Your task to perform on an android device: toggle airplane mode Image 0: 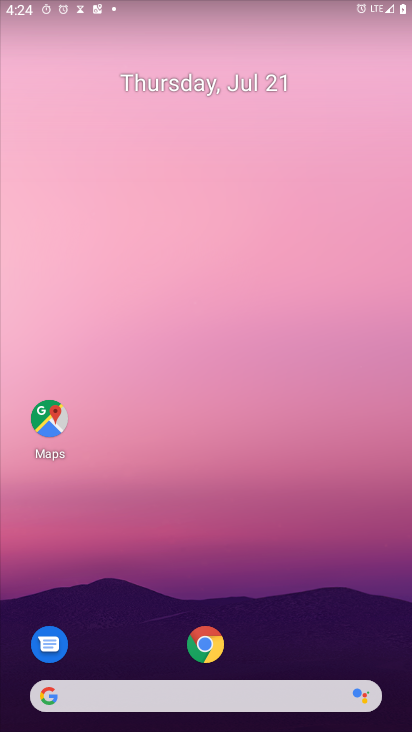
Step 0: drag from (230, 126) to (233, 665)
Your task to perform on an android device: toggle airplane mode Image 1: 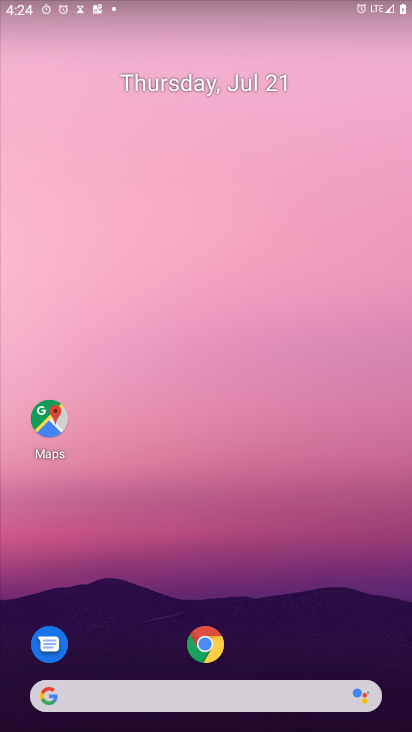
Step 1: drag from (232, 4) to (177, 508)
Your task to perform on an android device: toggle airplane mode Image 2: 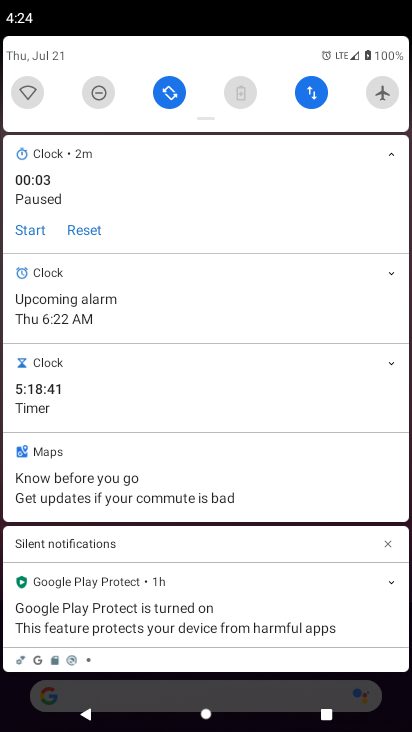
Step 2: click (377, 93)
Your task to perform on an android device: toggle airplane mode Image 3: 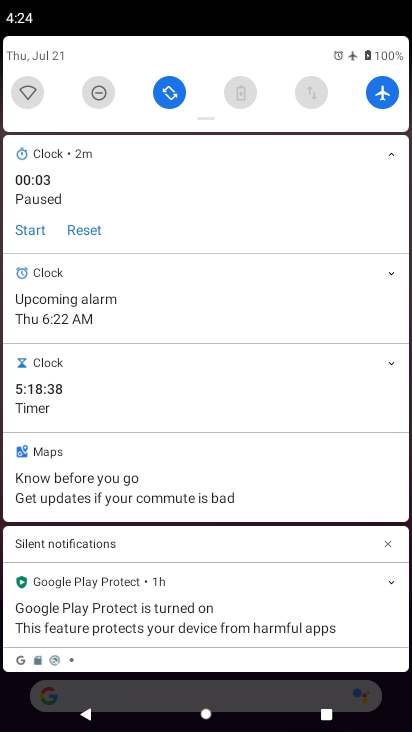
Step 3: task complete